Your task to perform on an android device: Go to Amazon Image 0: 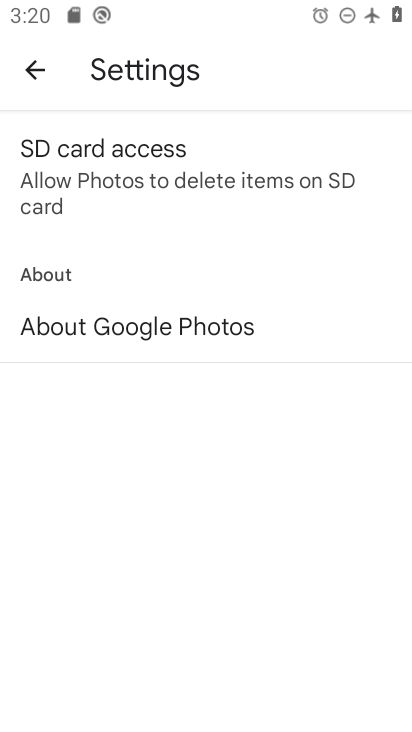
Step 0: press home button
Your task to perform on an android device: Go to Amazon Image 1: 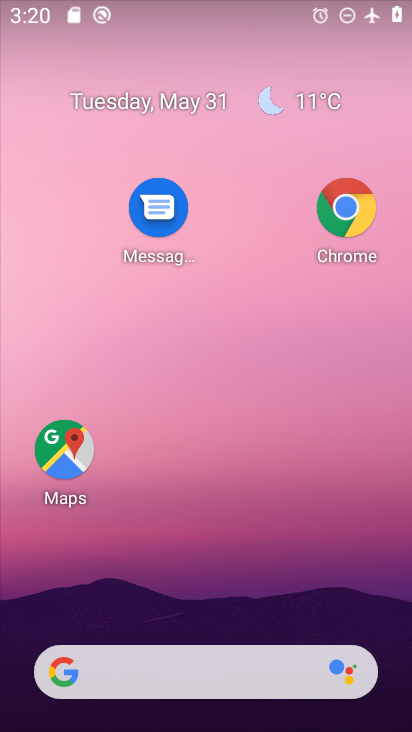
Step 1: drag from (262, 579) to (99, 4)
Your task to perform on an android device: Go to Amazon Image 2: 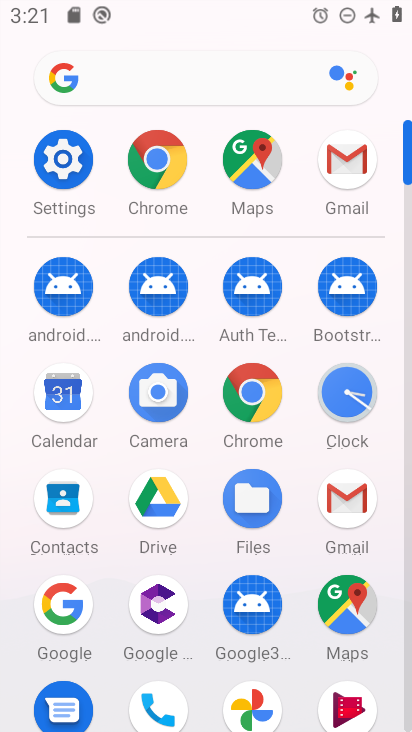
Step 2: click (110, 74)
Your task to perform on an android device: Go to Amazon Image 3: 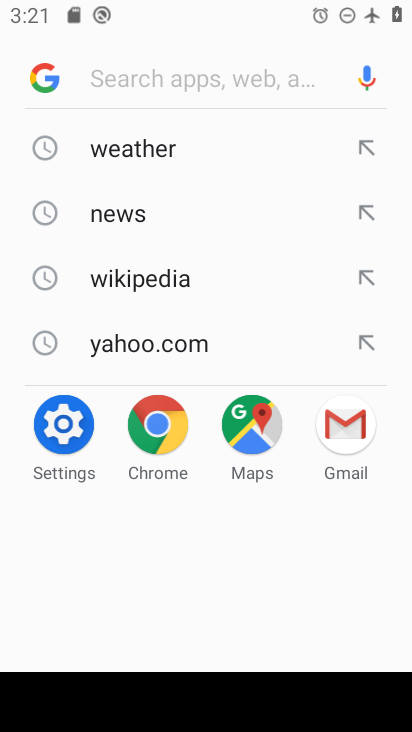
Step 3: type "Amazon"
Your task to perform on an android device: Go to Amazon Image 4: 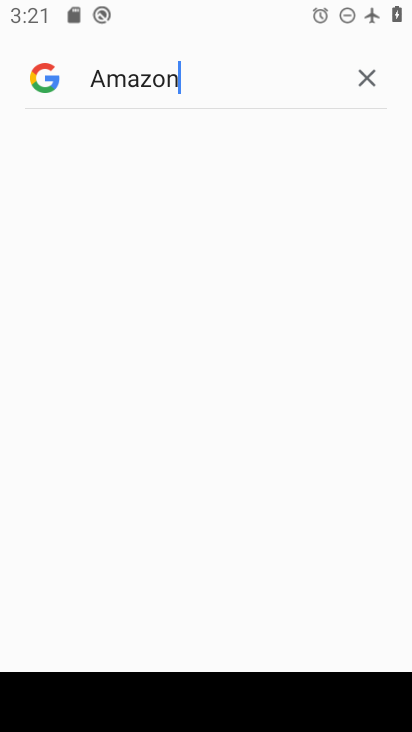
Step 4: click (179, 169)
Your task to perform on an android device: Go to Amazon Image 5: 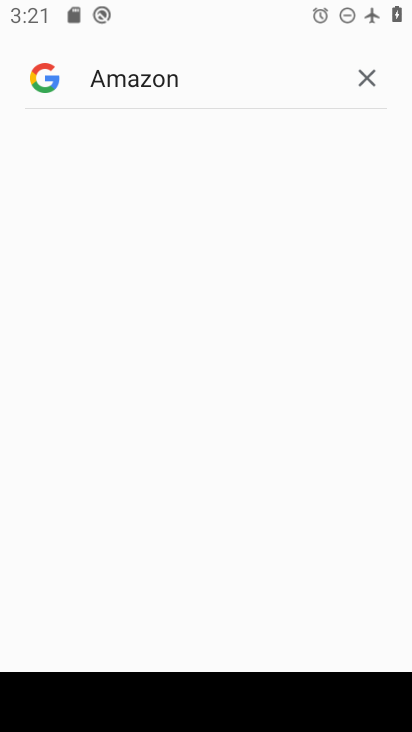
Step 5: task complete